Your task to perform on an android device: Open sound settings Image 0: 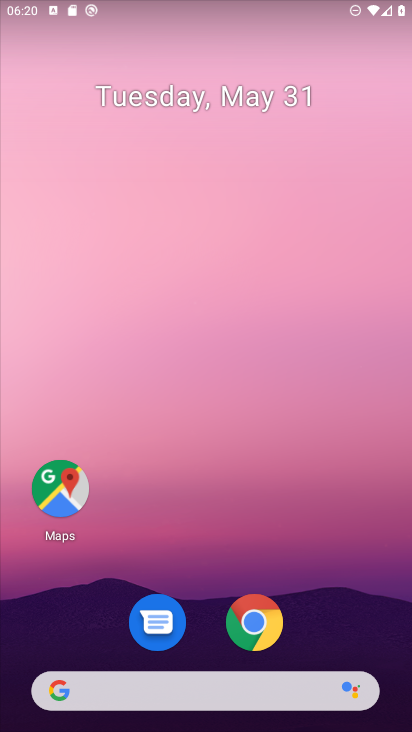
Step 0: drag from (292, 692) to (308, 50)
Your task to perform on an android device: Open sound settings Image 1: 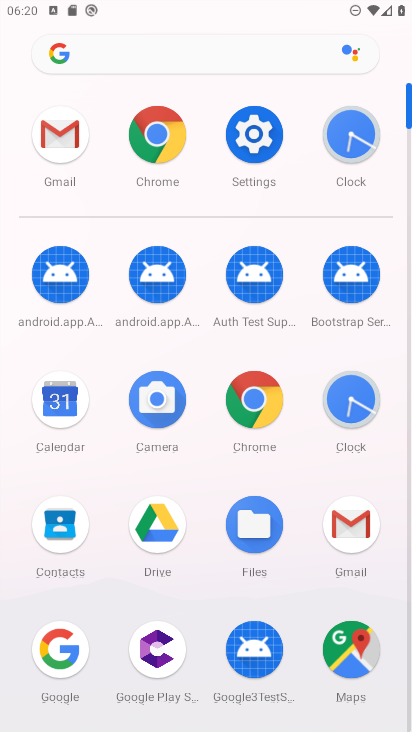
Step 1: click (247, 128)
Your task to perform on an android device: Open sound settings Image 2: 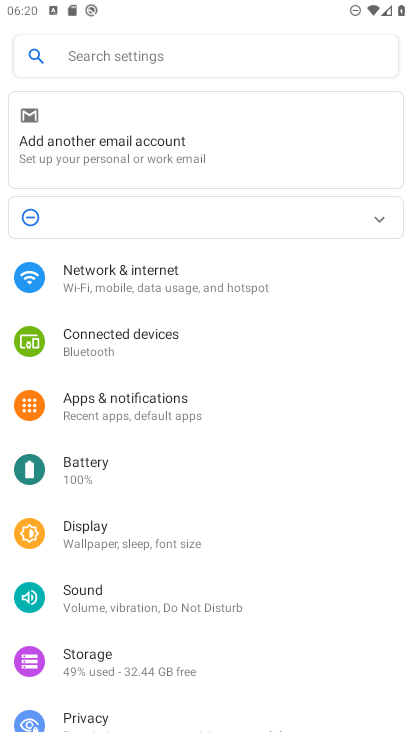
Step 2: click (122, 465)
Your task to perform on an android device: Open sound settings Image 3: 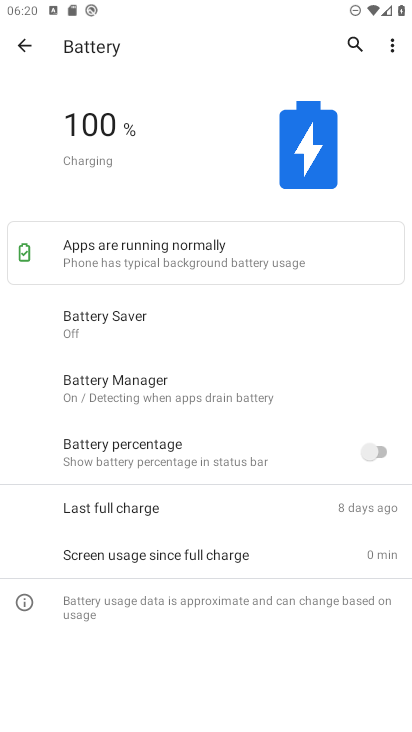
Step 3: press back button
Your task to perform on an android device: Open sound settings Image 4: 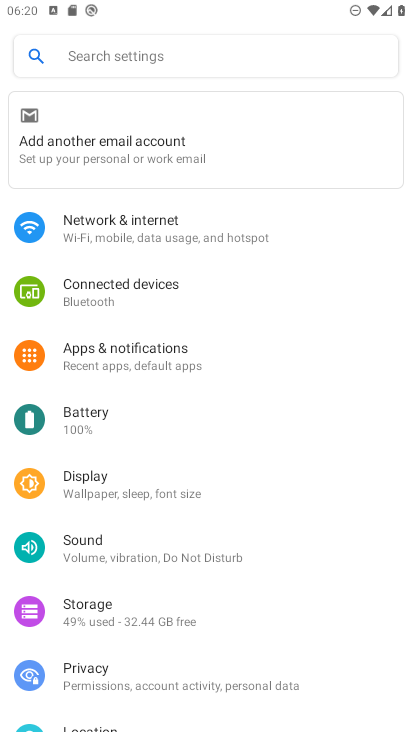
Step 4: click (131, 550)
Your task to perform on an android device: Open sound settings Image 5: 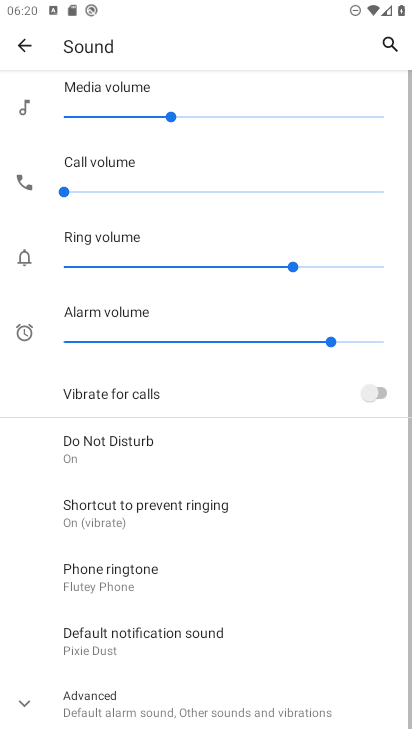
Step 5: task complete